Your task to perform on an android device: turn off airplane mode Image 0: 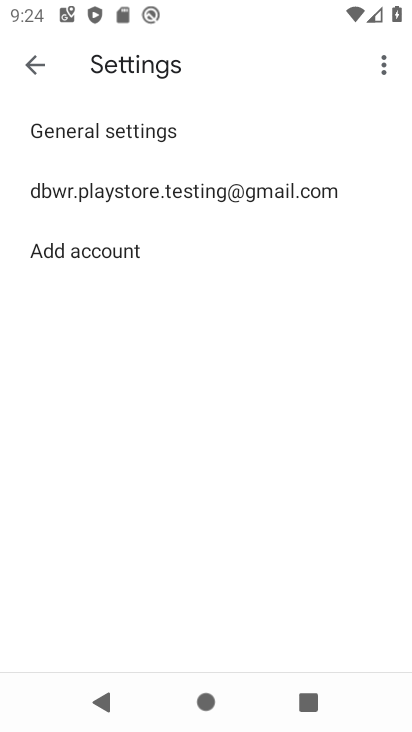
Step 0: press home button
Your task to perform on an android device: turn off airplane mode Image 1: 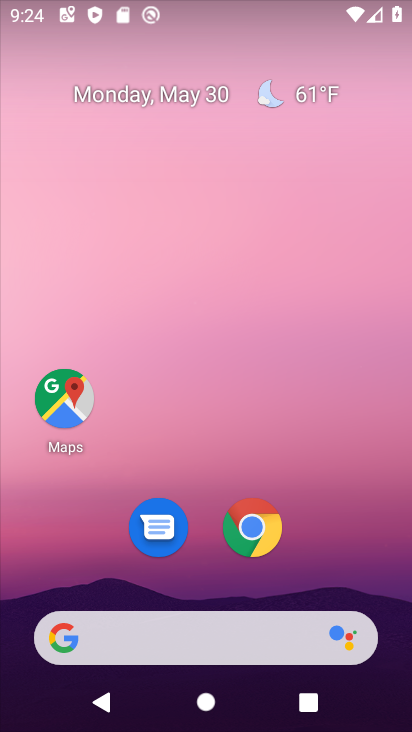
Step 1: drag from (209, 581) to (123, 9)
Your task to perform on an android device: turn off airplane mode Image 2: 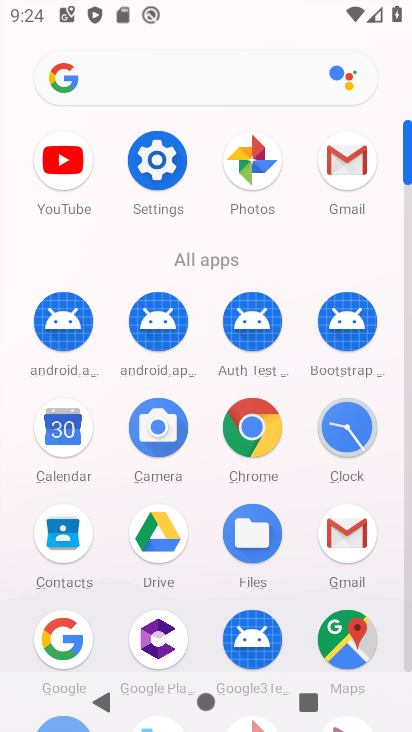
Step 2: click (155, 164)
Your task to perform on an android device: turn off airplane mode Image 3: 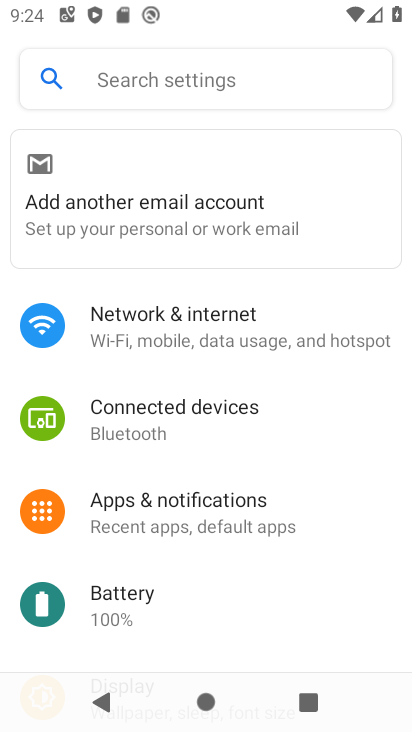
Step 3: click (166, 345)
Your task to perform on an android device: turn off airplane mode Image 4: 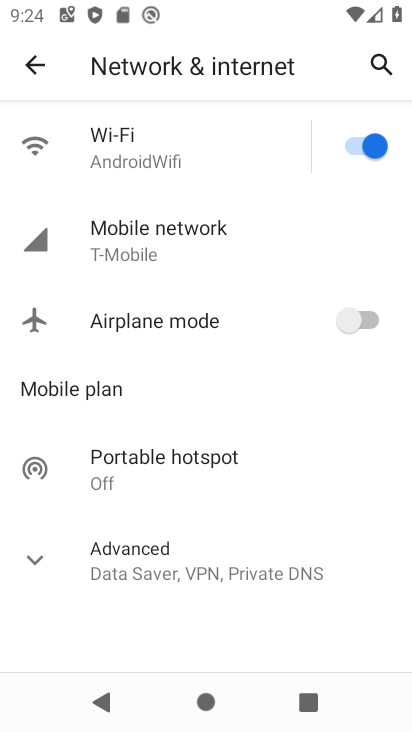
Step 4: task complete